Your task to perform on an android device: change the clock display to show seconds Image 0: 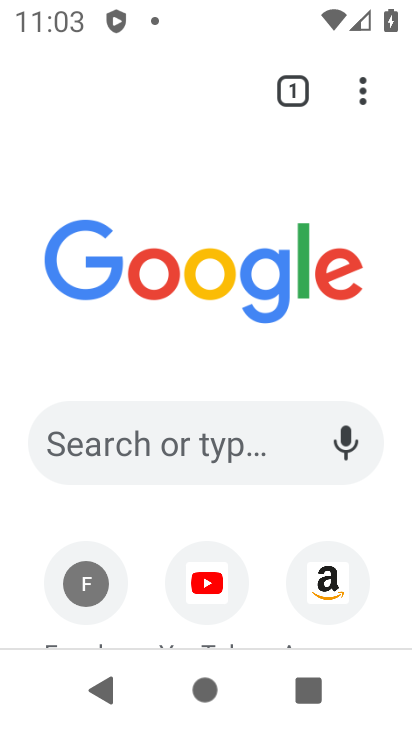
Step 0: press home button
Your task to perform on an android device: change the clock display to show seconds Image 1: 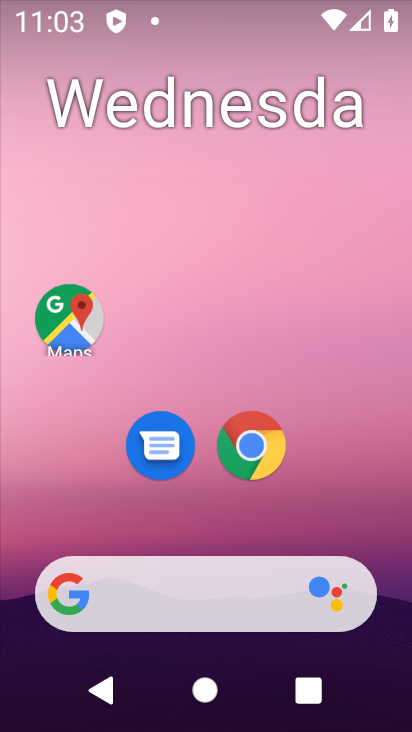
Step 1: drag from (367, 503) to (304, 10)
Your task to perform on an android device: change the clock display to show seconds Image 2: 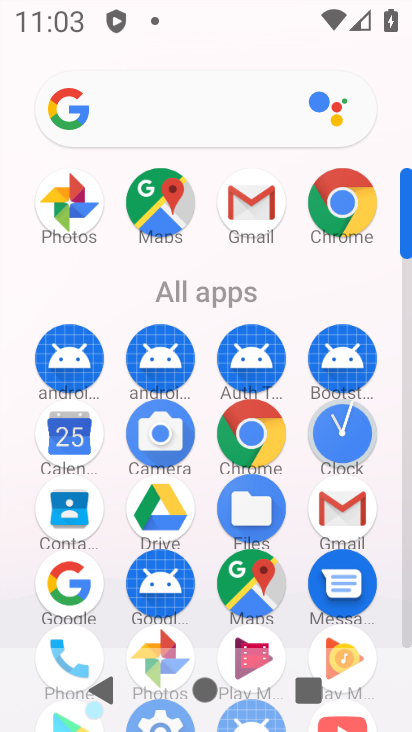
Step 2: click (340, 432)
Your task to perform on an android device: change the clock display to show seconds Image 3: 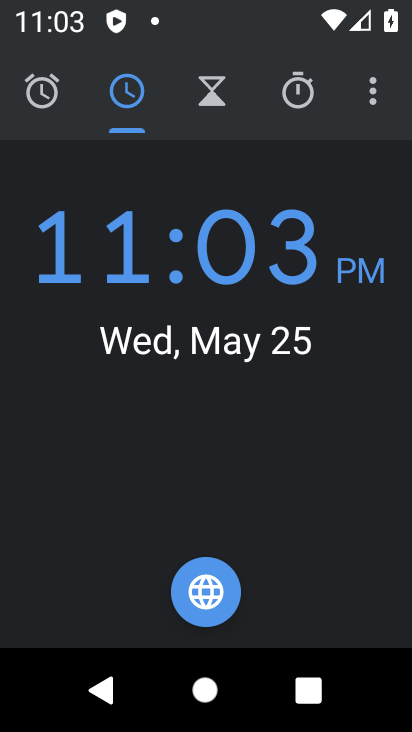
Step 3: click (373, 109)
Your task to perform on an android device: change the clock display to show seconds Image 4: 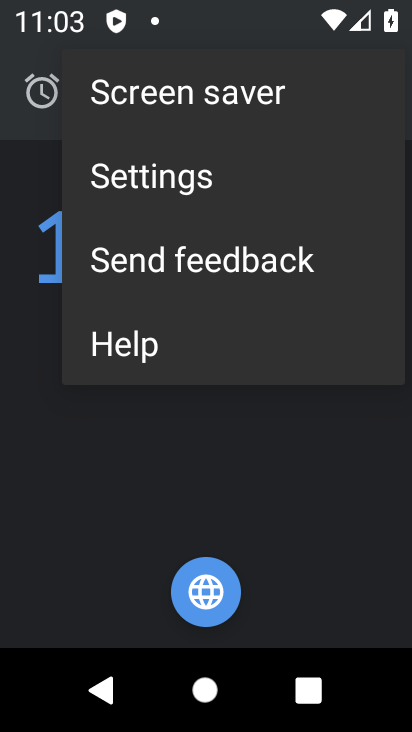
Step 4: click (192, 170)
Your task to perform on an android device: change the clock display to show seconds Image 5: 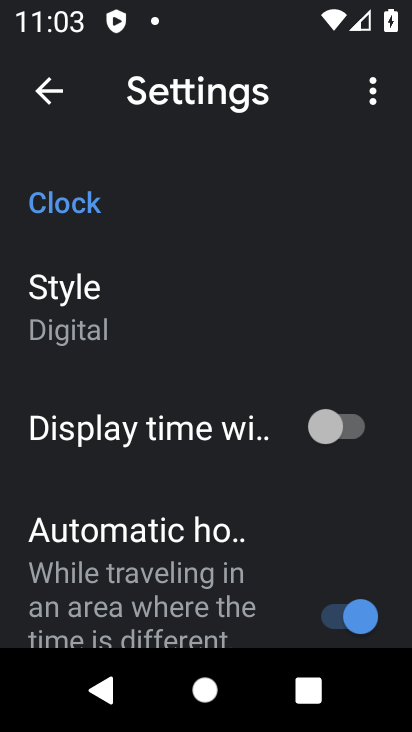
Step 5: click (151, 328)
Your task to perform on an android device: change the clock display to show seconds Image 6: 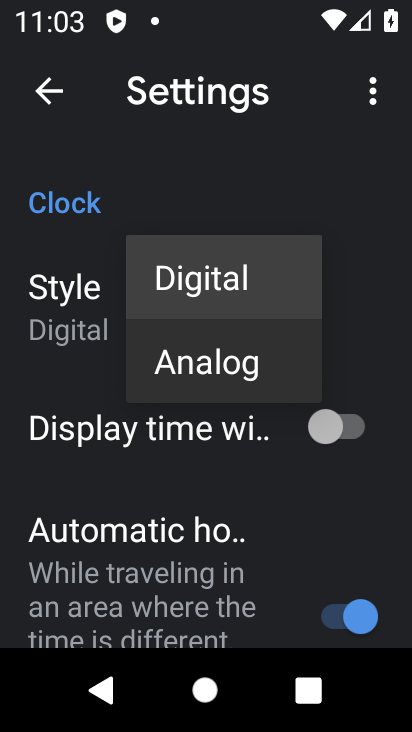
Step 6: click (339, 436)
Your task to perform on an android device: change the clock display to show seconds Image 7: 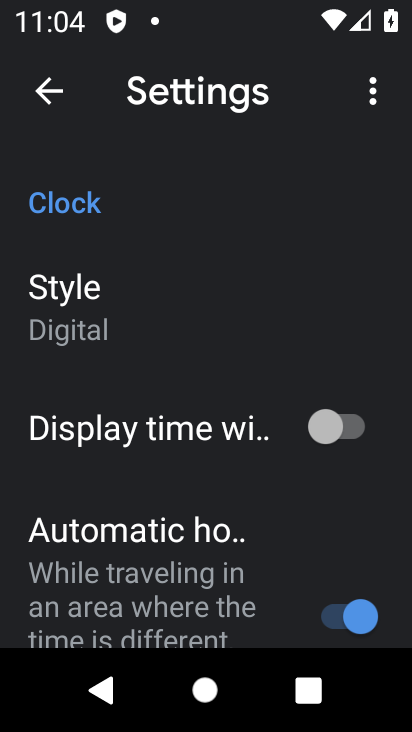
Step 7: click (348, 430)
Your task to perform on an android device: change the clock display to show seconds Image 8: 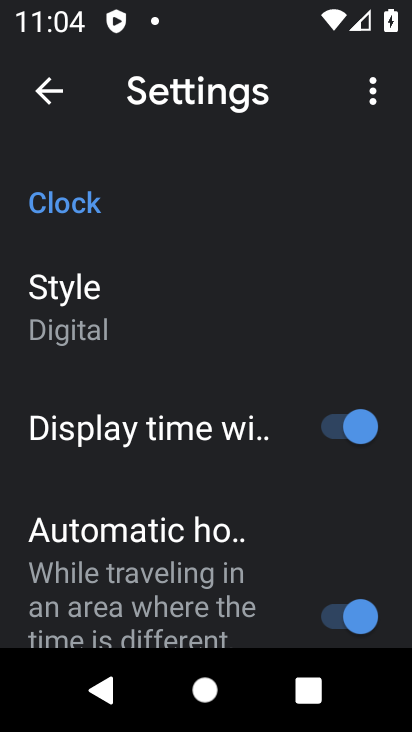
Step 8: task complete